Your task to perform on an android device: open wifi settings Image 0: 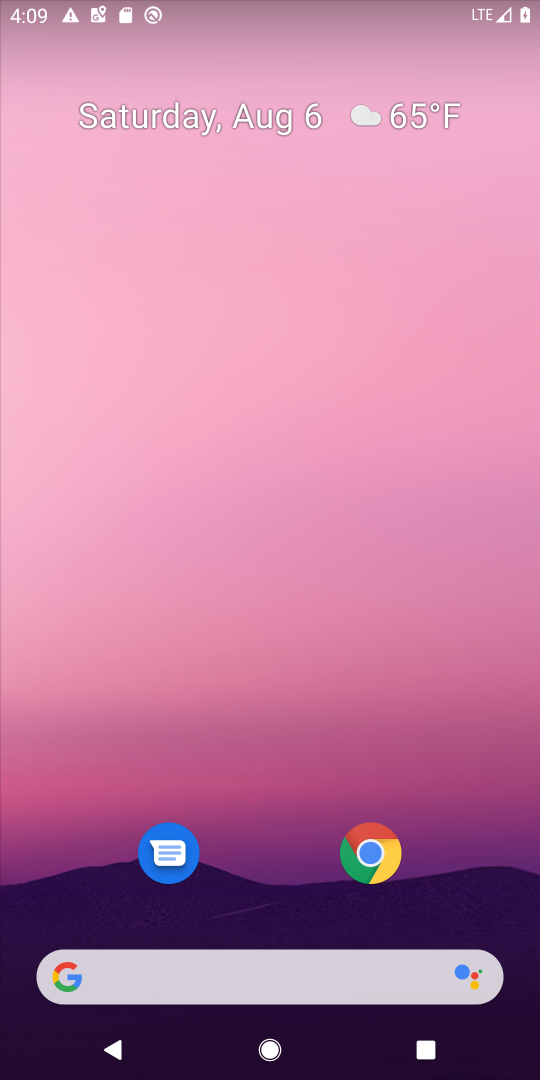
Step 0: drag from (121, 14) to (255, 775)
Your task to perform on an android device: open wifi settings Image 1: 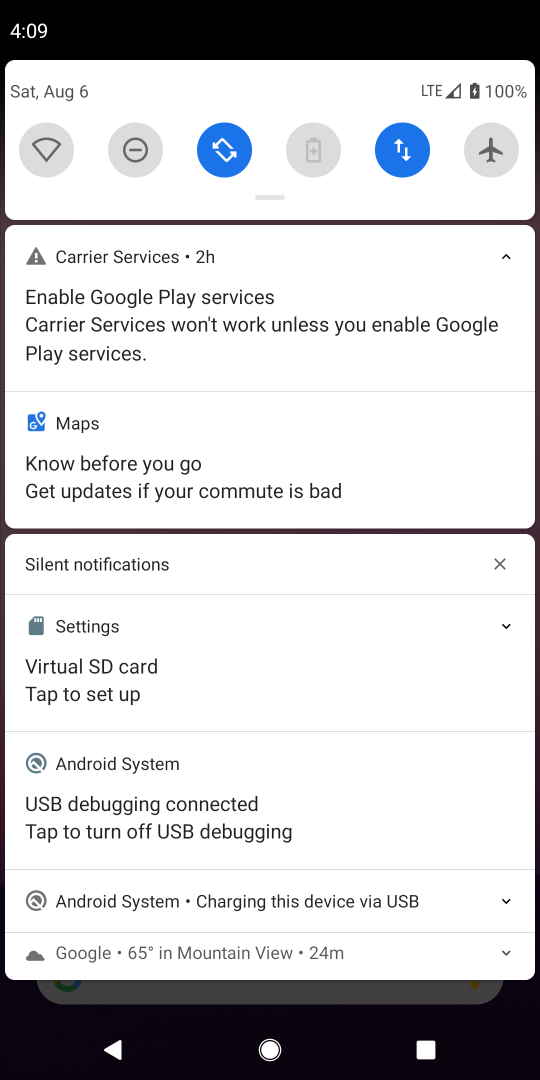
Step 1: click (37, 156)
Your task to perform on an android device: open wifi settings Image 2: 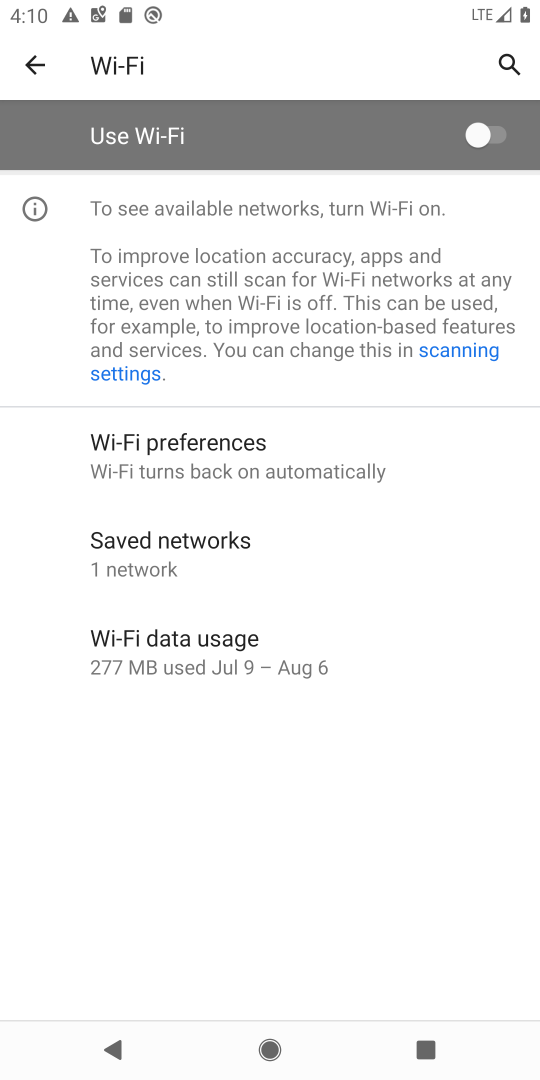
Step 2: task complete